Your task to perform on an android device: turn off location Image 0: 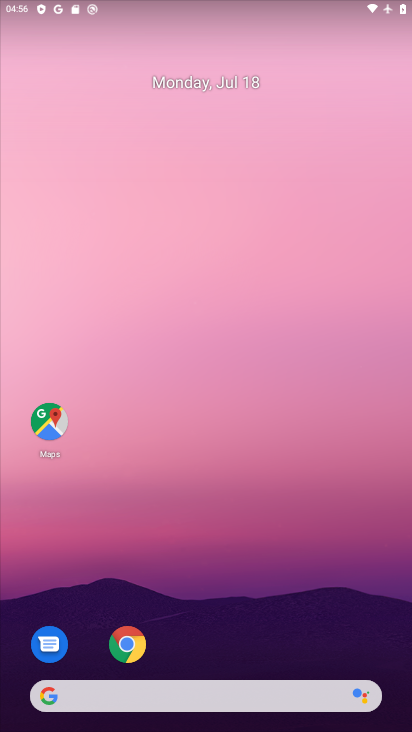
Step 0: press home button
Your task to perform on an android device: turn off location Image 1: 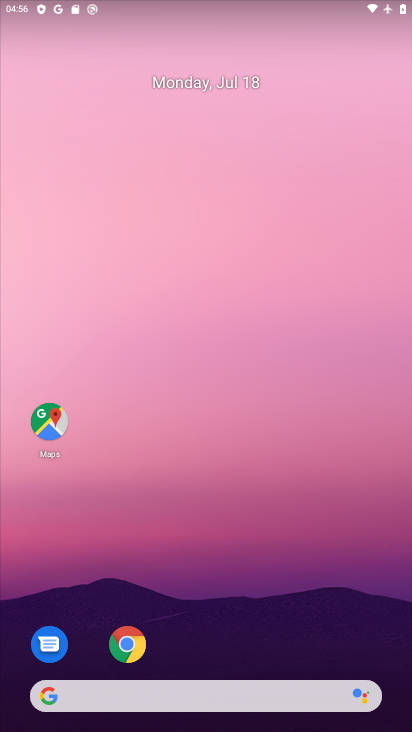
Step 1: drag from (206, 660) to (202, 101)
Your task to perform on an android device: turn off location Image 2: 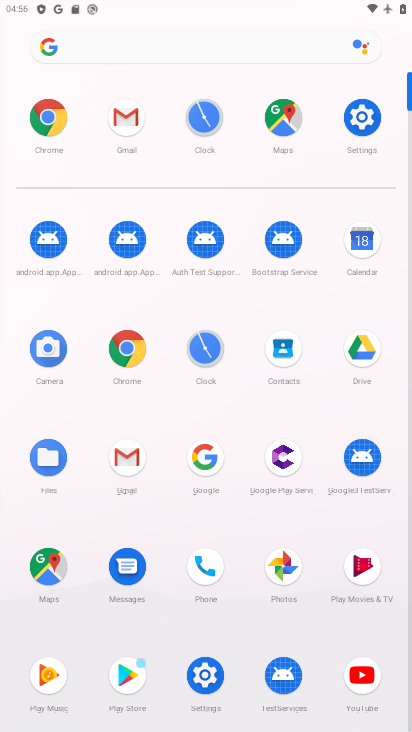
Step 2: click (372, 128)
Your task to perform on an android device: turn off location Image 3: 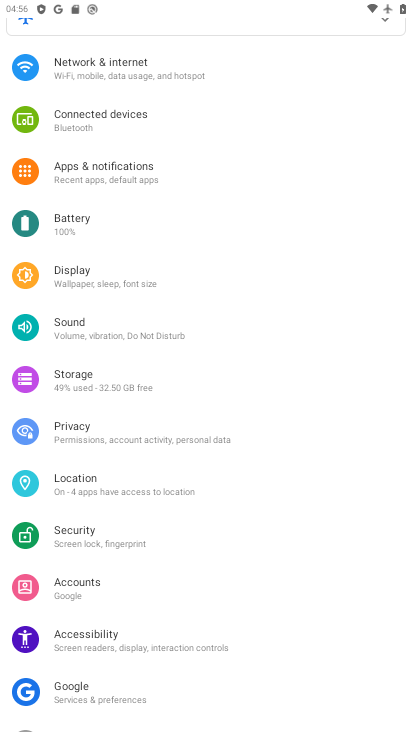
Step 3: click (70, 485)
Your task to perform on an android device: turn off location Image 4: 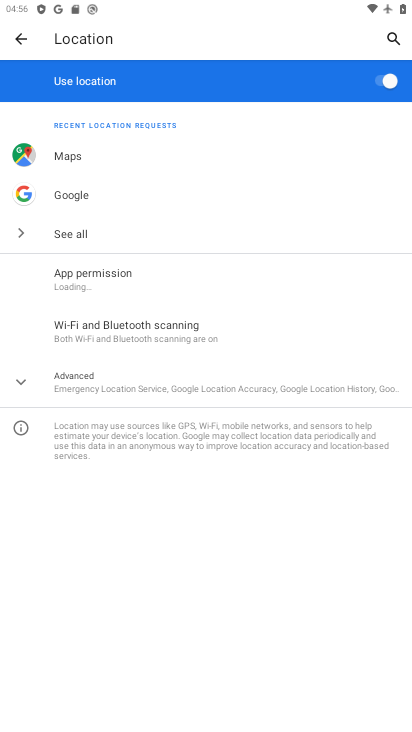
Step 4: click (390, 79)
Your task to perform on an android device: turn off location Image 5: 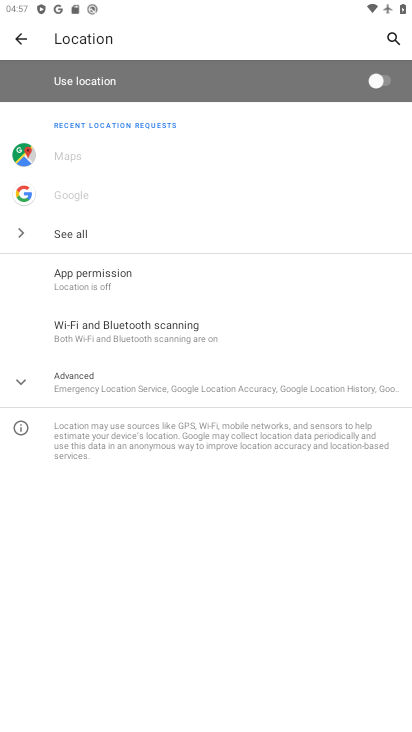
Step 5: task complete